Your task to perform on an android device: change notifications settings Image 0: 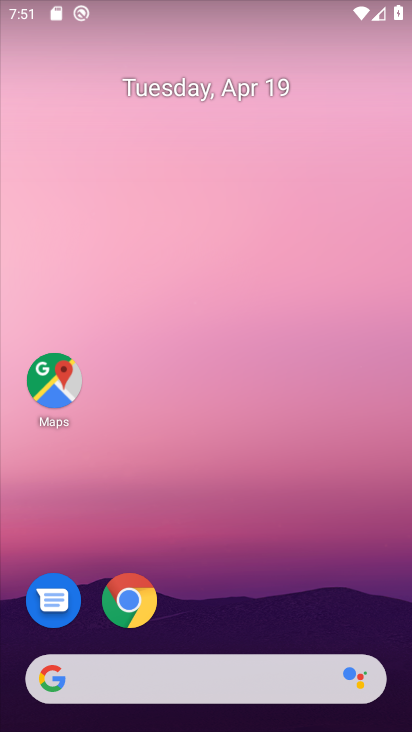
Step 0: drag from (380, 605) to (367, 109)
Your task to perform on an android device: change notifications settings Image 1: 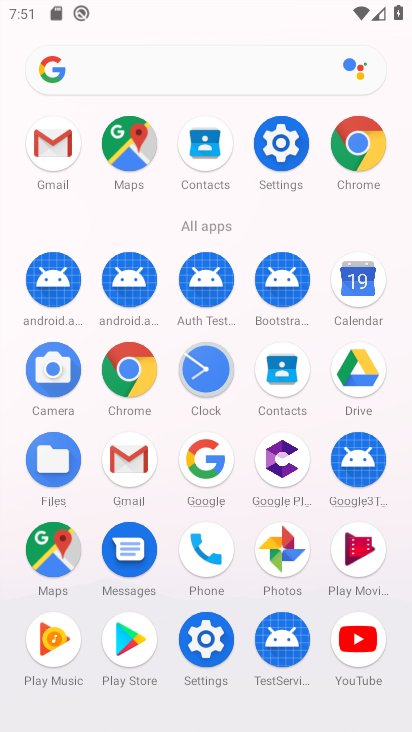
Step 1: click (291, 147)
Your task to perform on an android device: change notifications settings Image 2: 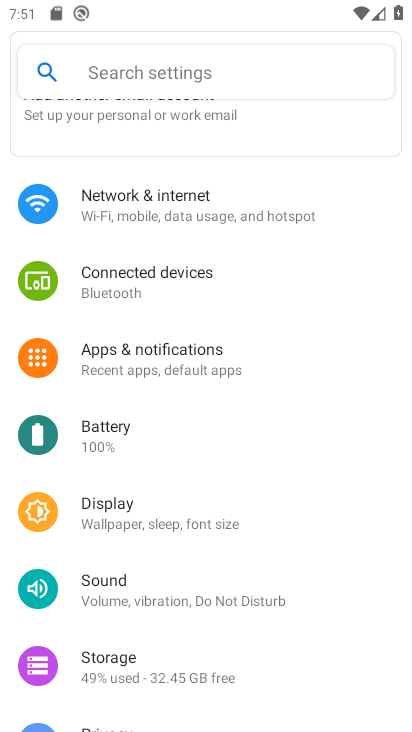
Step 2: drag from (347, 523) to (355, 360)
Your task to perform on an android device: change notifications settings Image 3: 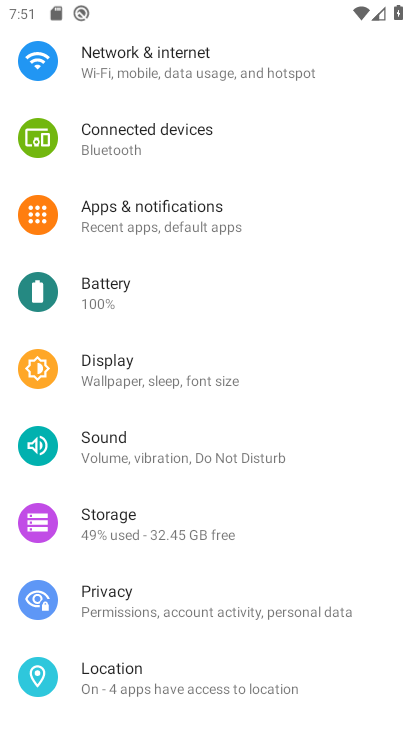
Step 3: drag from (353, 478) to (364, 283)
Your task to perform on an android device: change notifications settings Image 4: 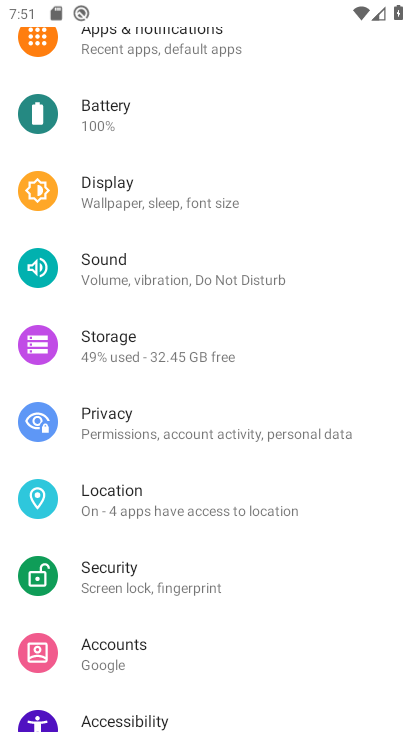
Step 4: drag from (366, 564) to (386, 357)
Your task to perform on an android device: change notifications settings Image 5: 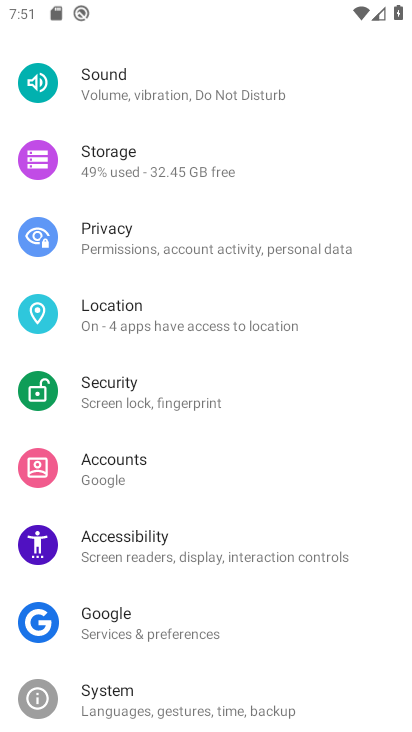
Step 5: drag from (377, 607) to (378, 298)
Your task to perform on an android device: change notifications settings Image 6: 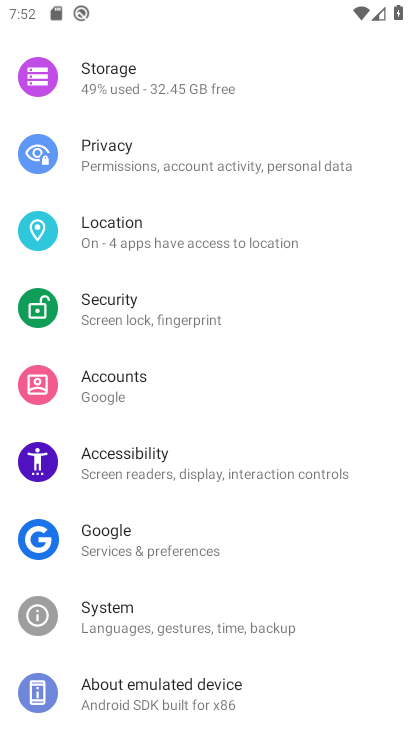
Step 6: drag from (367, 226) to (357, 517)
Your task to perform on an android device: change notifications settings Image 7: 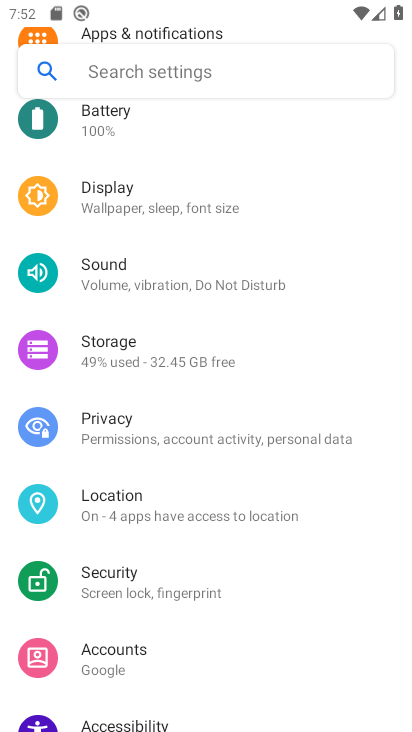
Step 7: drag from (368, 257) to (378, 474)
Your task to perform on an android device: change notifications settings Image 8: 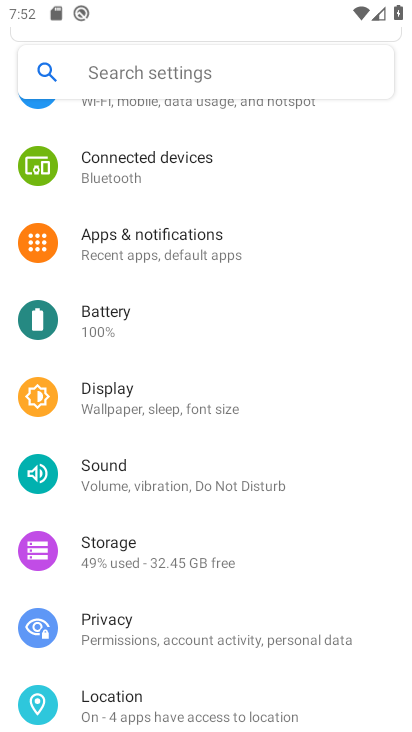
Step 8: drag from (370, 266) to (361, 469)
Your task to perform on an android device: change notifications settings Image 9: 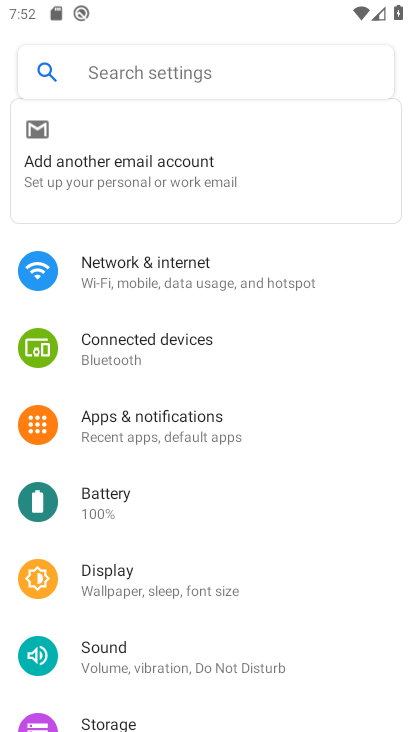
Step 9: click (169, 429)
Your task to perform on an android device: change notifications settings Image 10: 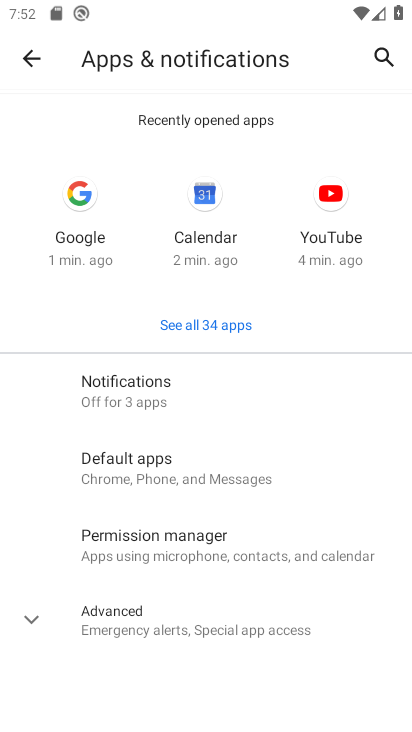
Step 10: click (140, 395)
Your task to perform on an android device: change notifications settings Image 11: 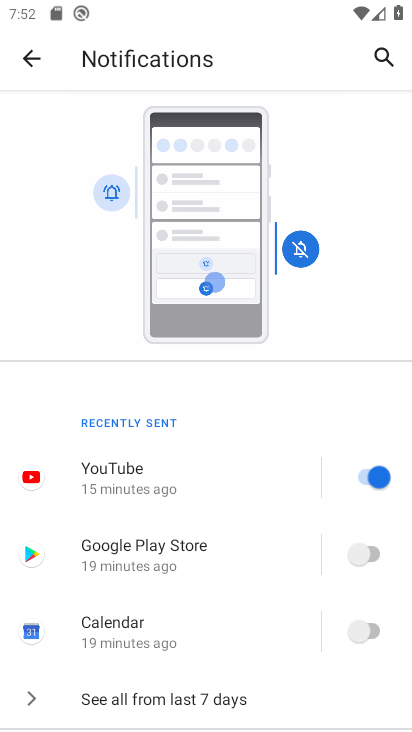
Step 11: drag from (267, 564) to (291, 309)
Your task to perform on an android device: change notifications settings Image 12: 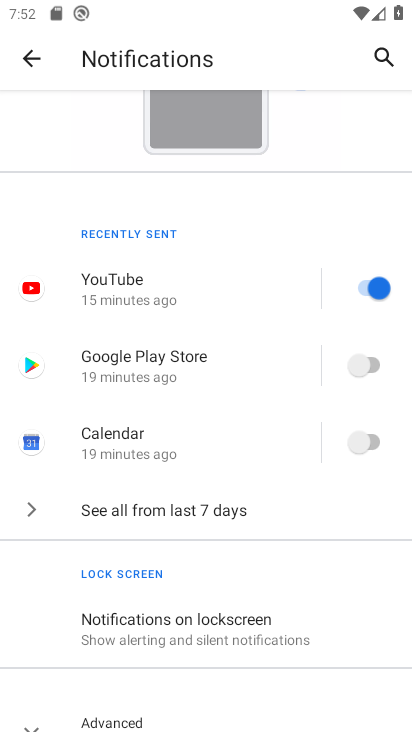
Step 12: click (360, 360)
Your task to perform on an android device: change notifications settings Image 13: 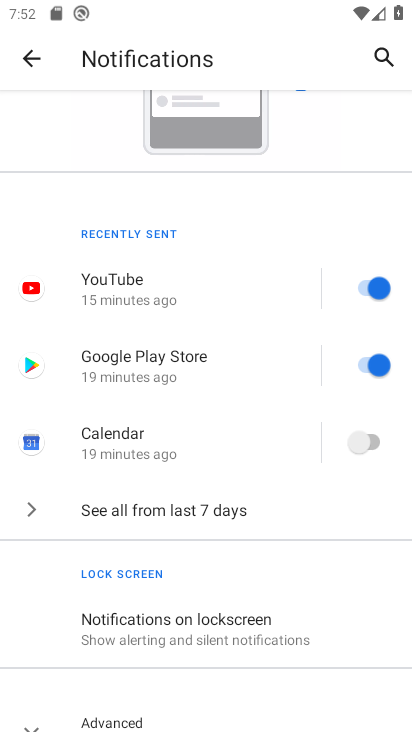
Step 13: click (367, 435)
Your task to perform on an android device: change notifications settings Image 14: 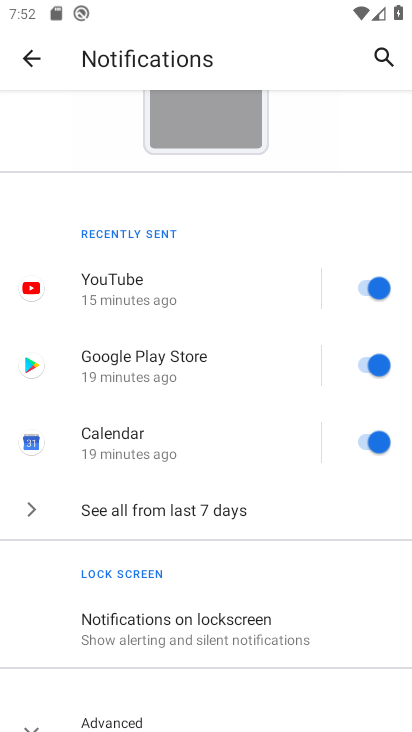
Step 14: click (368, 284)
Your task to perform on an android device: change notifications settings Image 15: 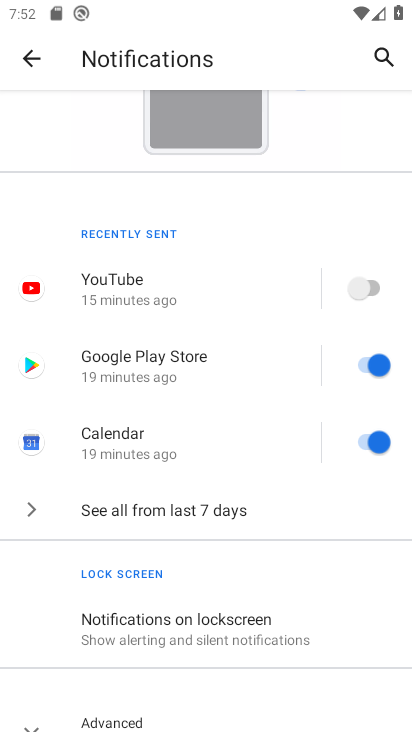
Step 15: task complete